Your task to perform on an android device: Go to calendar. Show me events next week Image 0: 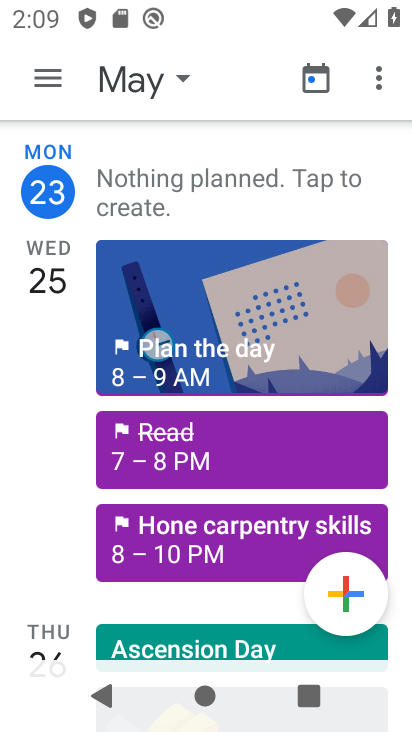
Step 0: click (167, 66)
Your task to perform on an android device: Go to calendar. Show me events next week Image 1: 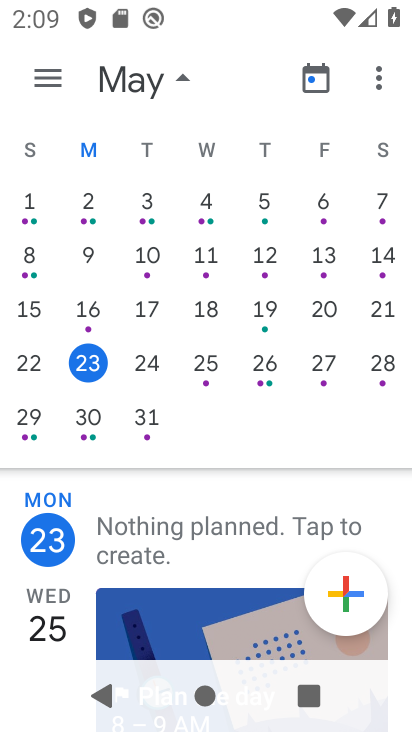
Step 1: click (99, 368)
Your task to perform on an android device: Go to calendar. Show me events next week Image 2: 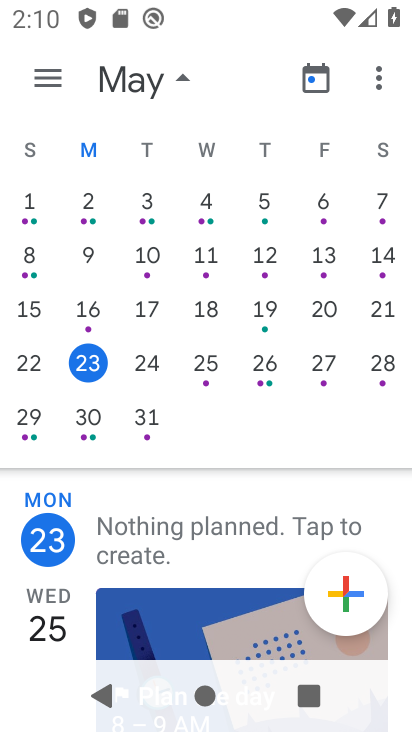
Step 2: task complete